Your task to perform on an android device: clear all cookies in the chrome app Image 0: 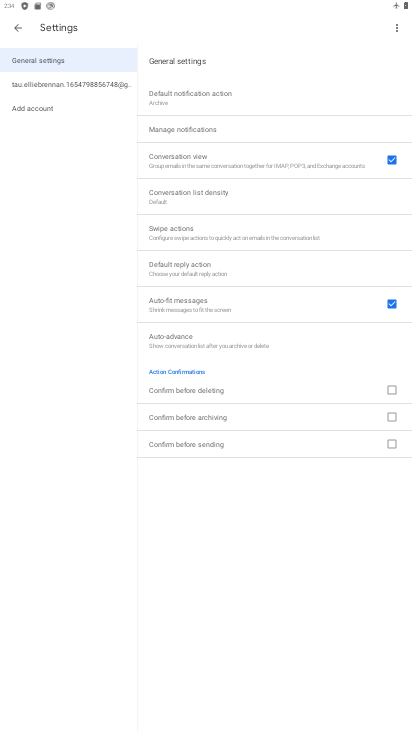
Step 0: press home button
Your task to perform on an android device: clear all cookies in the chrome app Image 1: 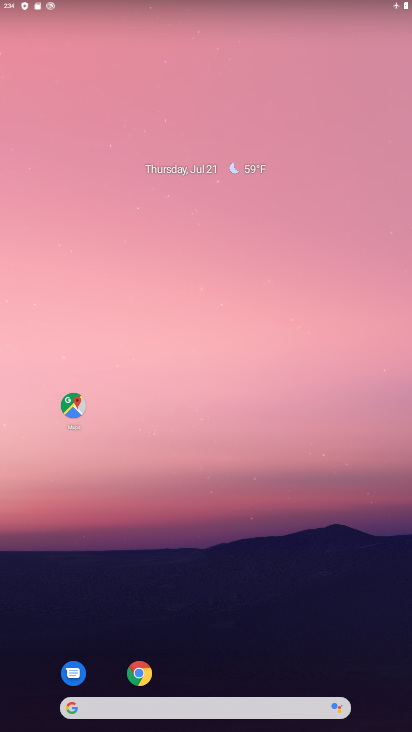
Step 1: click (141, 673)
Your task to perform on an android device: clear all cookies in the chrome app Image 2: 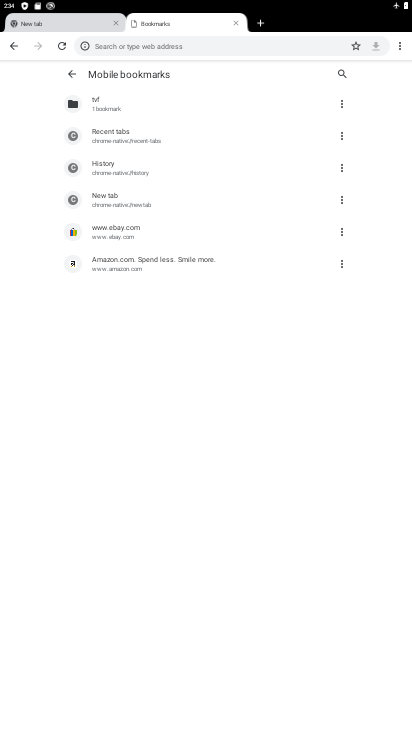
Step 2: click (397, 51)
Your task to perform on an android device: clear all cookies in the chrome app Image 3: 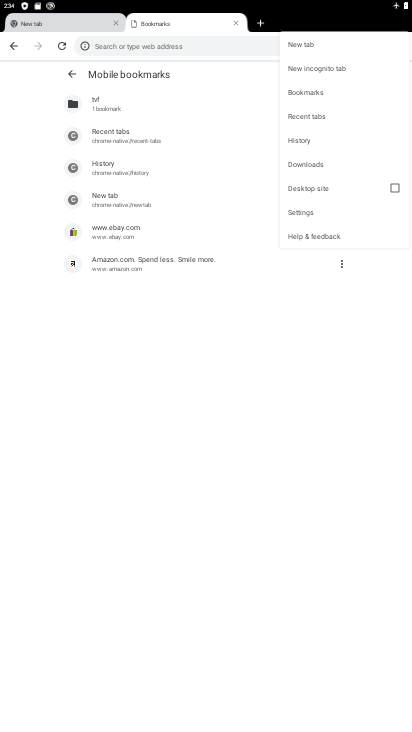
Step 3: click (299, 143)
Your task to perform on an android device: clear all cookies in the chrome app Image 4: 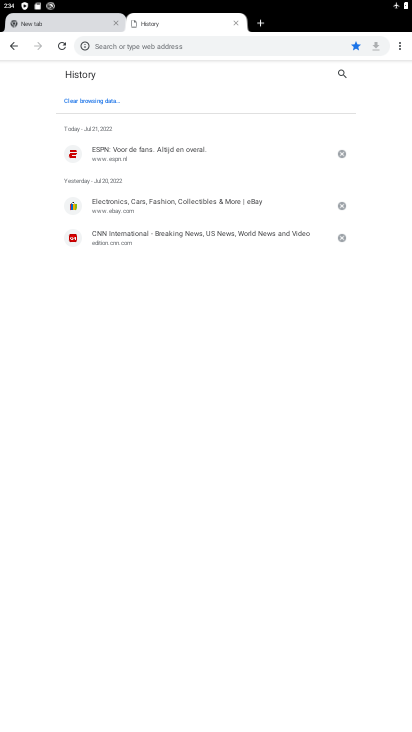
Step 4: click (84, 104)
Your task to perform on an android device: clear all cookies in the chrome app Image 5: 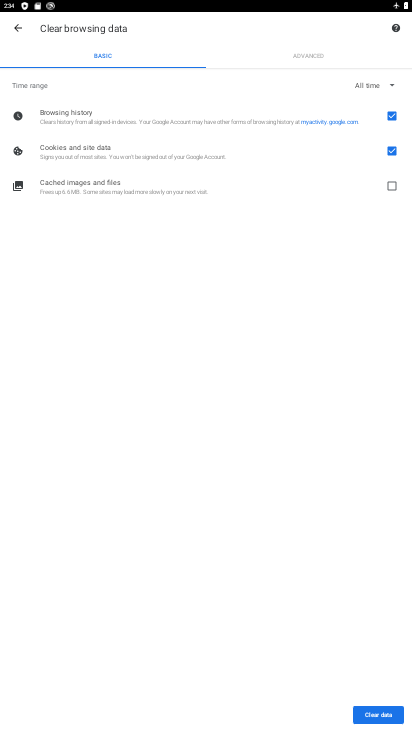
Step 5: click (391, 112)
Your task to perform on an android device: clear all cookies in the chrome app Image 6: 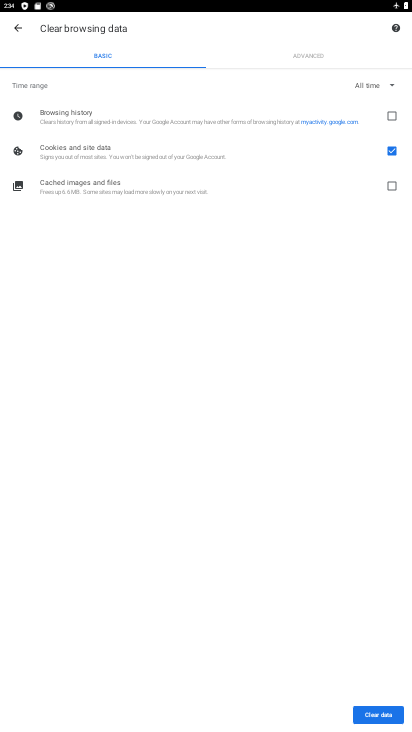
Step 6: click (373, 714)
Your task to perform on an android device: clear all cookies in the chrome app Image 7: 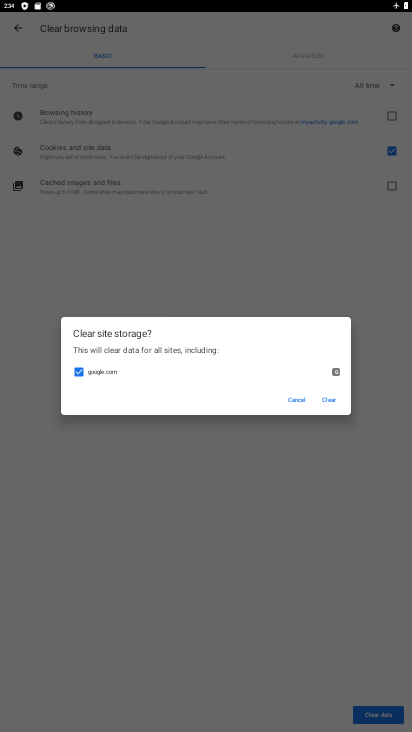
Step 7: click (328, 397)
Your task to perform on an android device: clear all cookies in the chrome app Image 8: 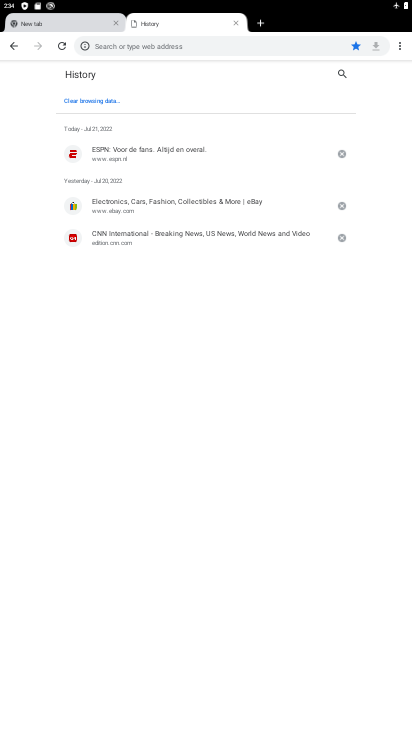
Step 8: task complete